Your task to perform on an android device: toggle pop-ups in chrome Image 0: 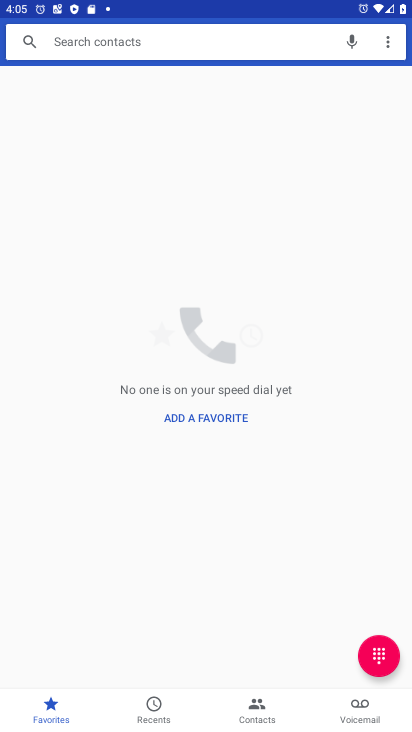
Step 0: press home button
Your task to perform on an android device: toggle pop-ups in chrome Image 1: 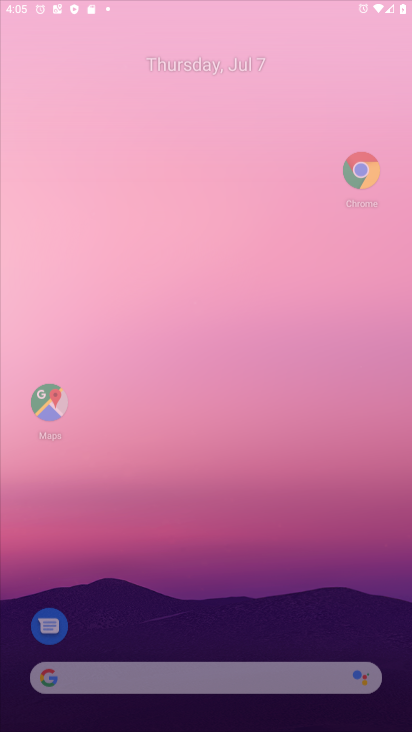
Step 1: drag from (240, 694) to (222, 170)
Your task to perform on an android device: toggle pop-ups in chrome Image 2: 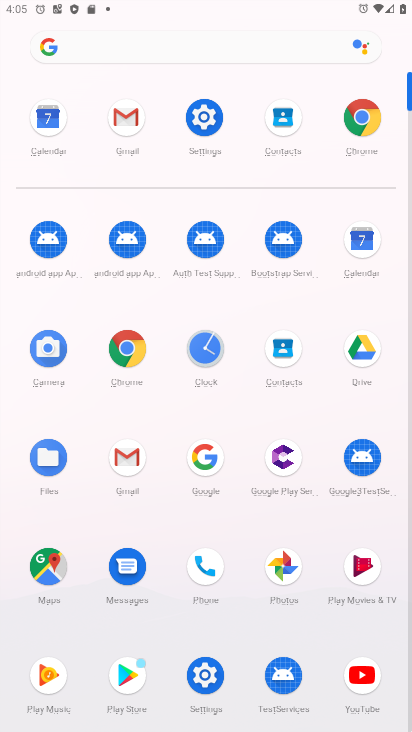
Step 2: click (349, 138)
Your task to perform on an android device: toggle pop-ups in chrome Image 3: 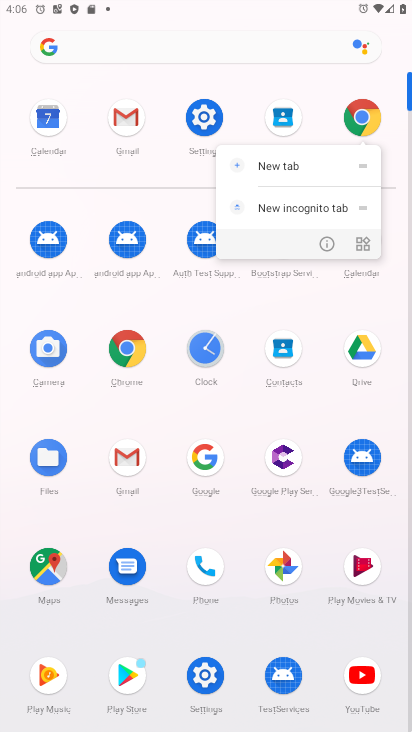
Step 3: click (371, 131)
Your task to perform on an android device: toggle pop-ups in chrome Image 4: 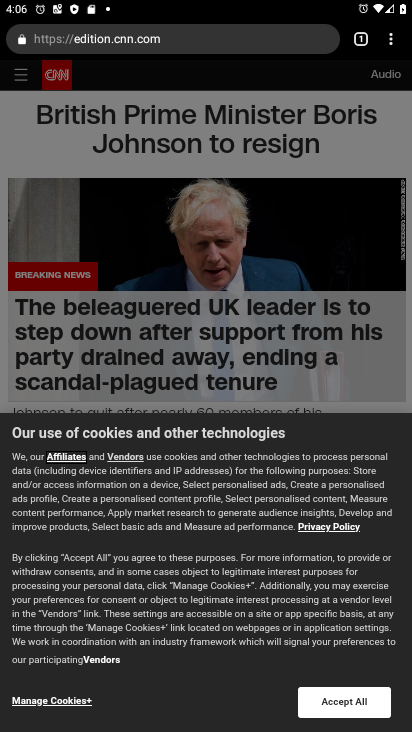
Step 4: drag from (391, 42) to (273, 484)
Your task to perform on an android device: toggle pop-ups in chrome Image 5: 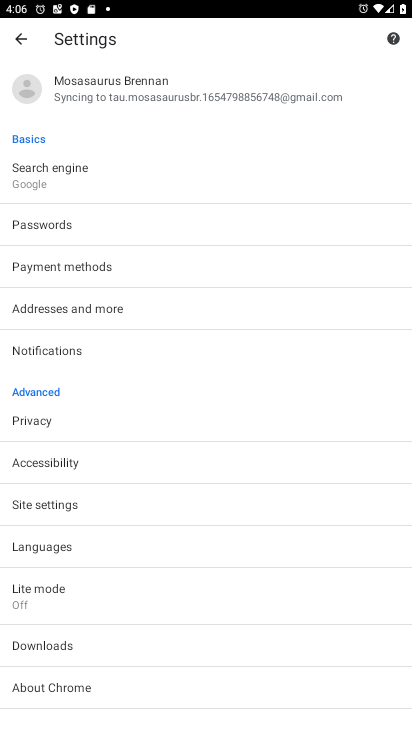
Step 5: click (140, 513)
Your task to perform on an android device: toggle pop-ups in chrome Image 6: 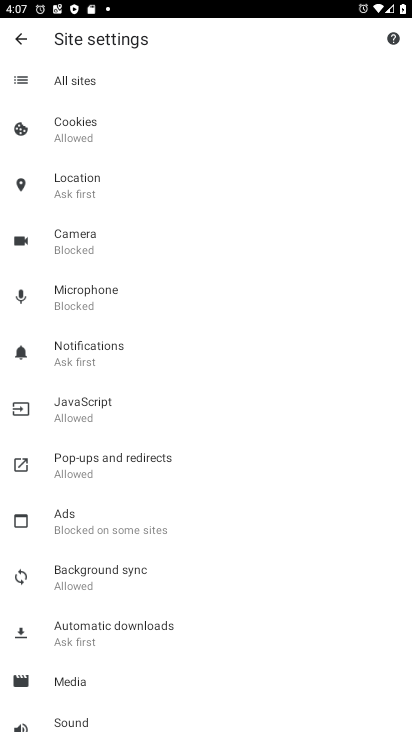
Step 6: click (125, 456)
Your task to perform on an android device: toggle pop-ups in chrome Image 7: 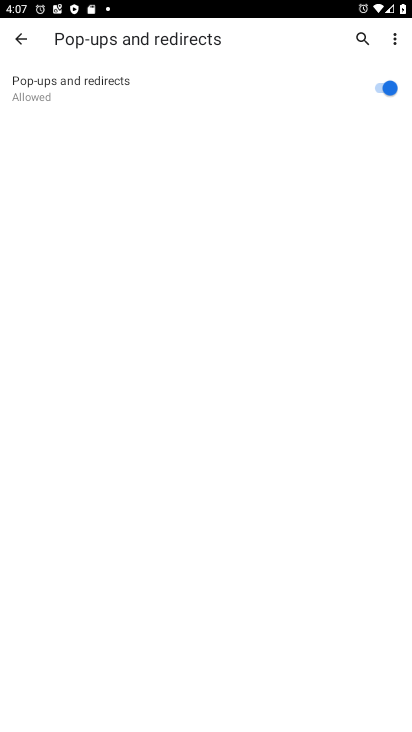
Step 7: click (170, 92)
Your task to perform on an android device: toggle pop-ups in chrome Image 8: 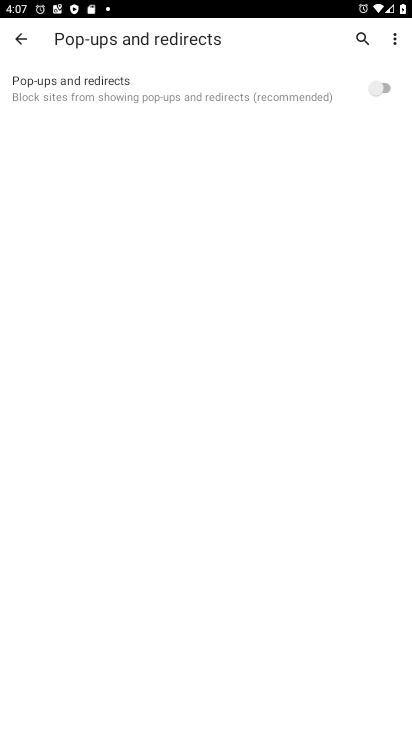
Step 8: task complete